Your task to perform on an android device: Open the map Image 0: 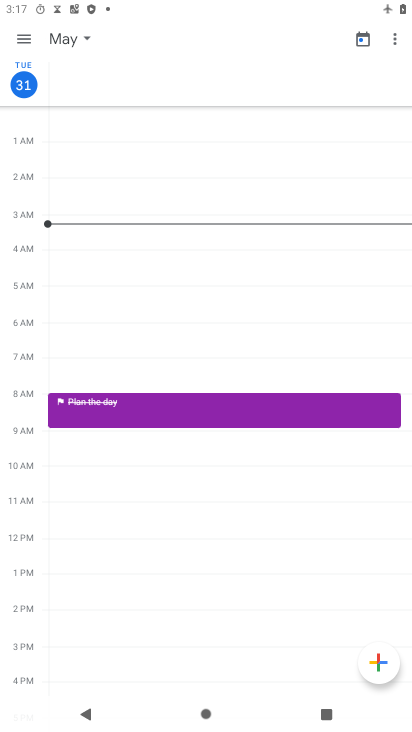
Step 0: press home button
Your task to perform on an android device: Open the map Image 1: 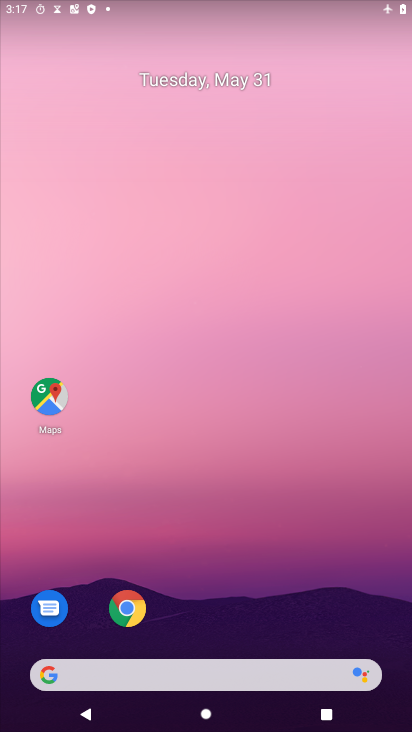
Step 1: click (52, 393)
Your task to perform on an android device: Open the map Image 2: 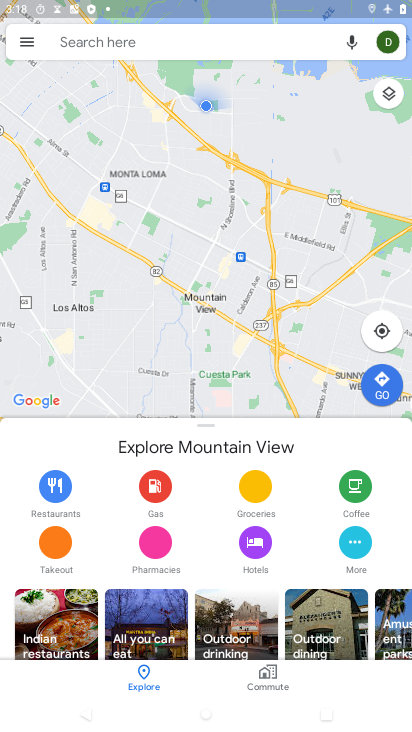
Step 2: task complete